Your task to perform on an android device: Clear all items from cart on ebay.com. Add "razer huntsman" to the cart on ebay.com Image 0: 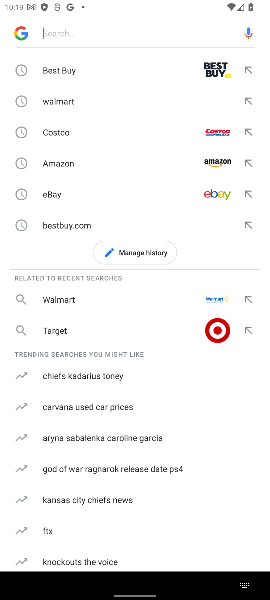
Step 0: click (56, 193)
Your task to perform on an android device: Clear all items from cart on ebay.com. Add "razer huntsman" to the cart on ebay.com Image 1: 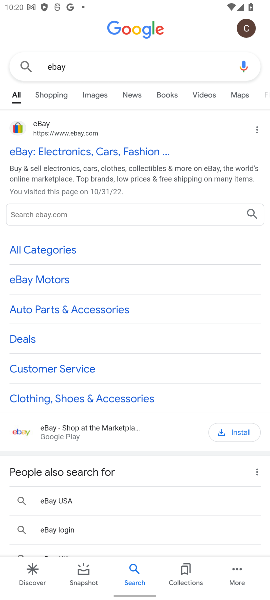
Step 1: click (54, 215)
Your task to perform on an android device: Clear all items from cart on ebay.com. Add "razer huntsman" to the cart on ebay.com Image 2: 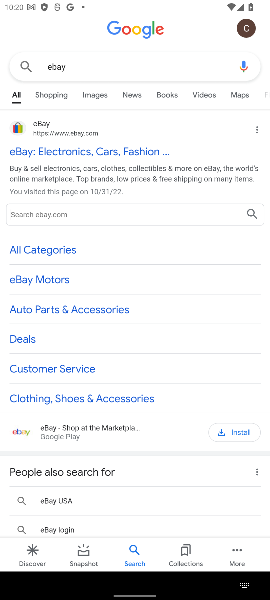
Step 2: type "razer huntsman"
Your task to perform on an android device: Clear all items from cart on ebay.com. Add "razer huntsman" to the cart on ebay.com Image 3: 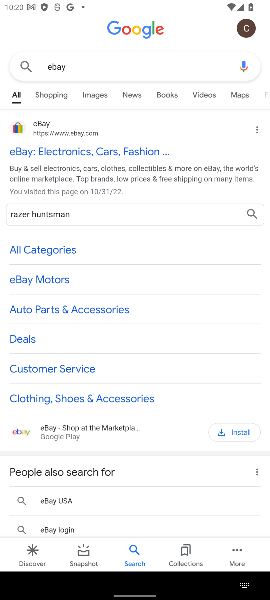
Step 3: click (250, 214)
Your task to perform on an android device: Clear all items from cart on ebay.com. Add "razer huntsman" to the cart on ebay.com Image 4: 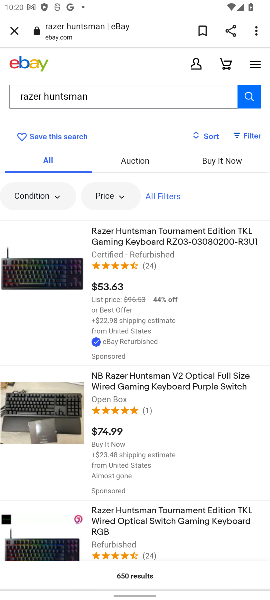
Step 4: click (156, 248)
Your task to perform on an android device: Clear all items from cart on ebay.com. Add "razer huntsman" to the cart on ebay.com Image 5: 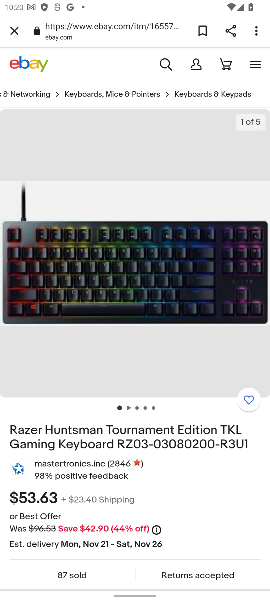
Step 5: drag from (168, 480) to (137, 276)
Your task to perform on an android device: Clear all items from cart on ebay.com. Add "razer huntsman" to the cart on ebay.com Image 6: 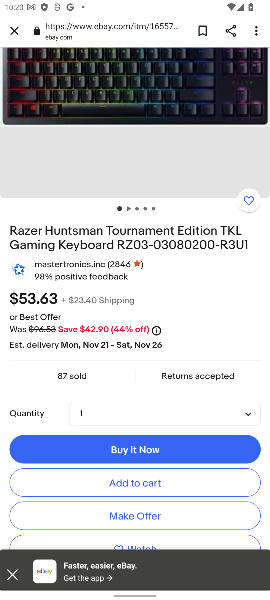
Step 6: click (132, 482)
Your task to perform on an android device: Clear all items from cart on ebay.com. Add "razer huntsman" to the cart on ebay.com Image 7: 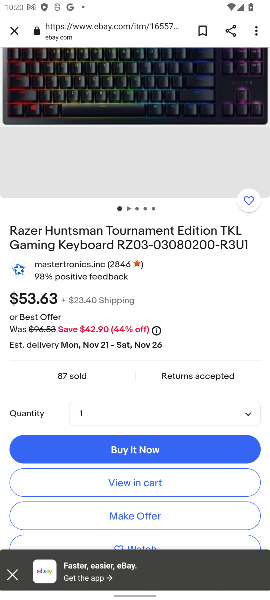
Step 7: task complete